Your task to perform on an android device: Search for vegetarian restaurants on Maps Image 0: 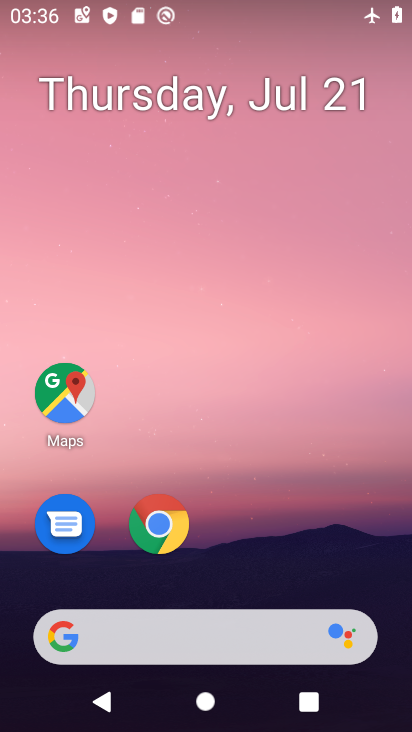
Step 0: drag from (252, 480) to (336, 0)
Your task to perform on an android device: Search for vegetarian restaurants on Maps Image 1: 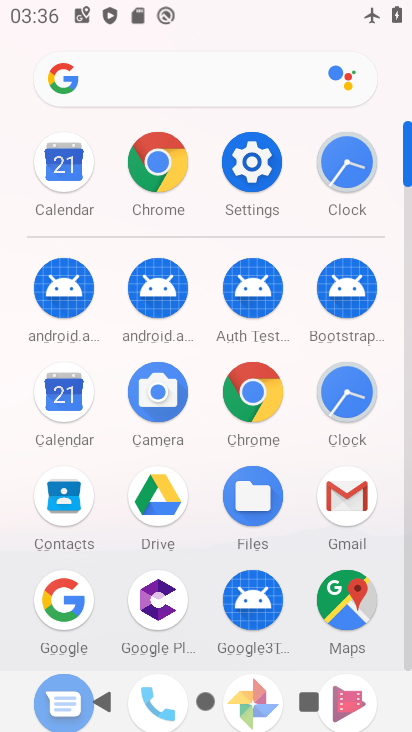
Step 1: click (247, 164)
Your task to perform on an android device: Search for vegetarian restaurants on Maps Image 2: 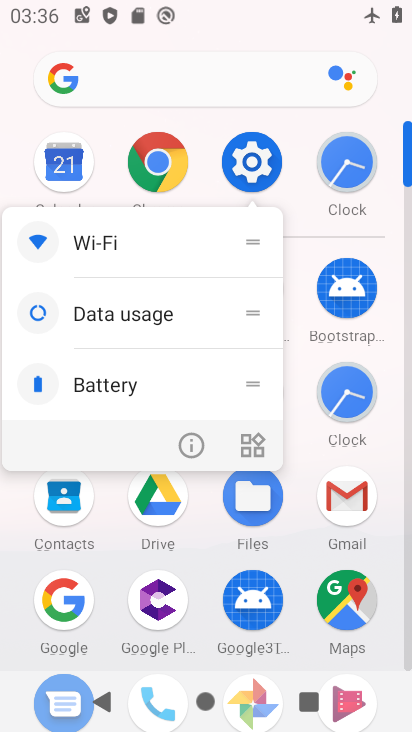
Step 2: click (250, 159)
Your task to perform on an android device: Search for vegetarian restaurants on Maps Image 3: 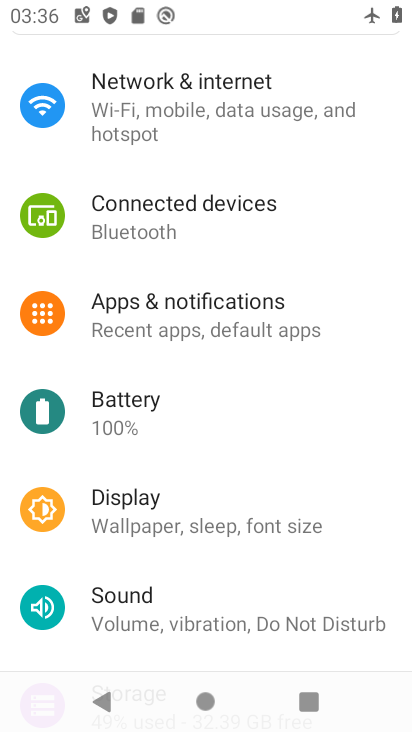
Step 3: click (263, 104)
Your task to perform on an android device: Search for vegetarian restaurants on Maps Image 4: 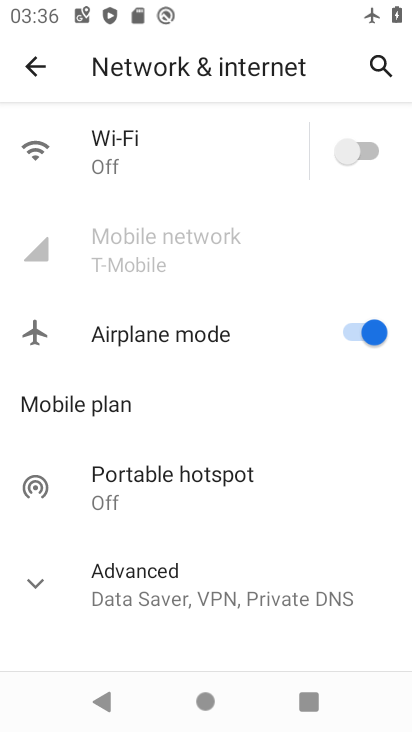
Step 4: click (369, 324)
Your task to perform on an android device: Search for vegetarian restaurants on Maps Image 5: 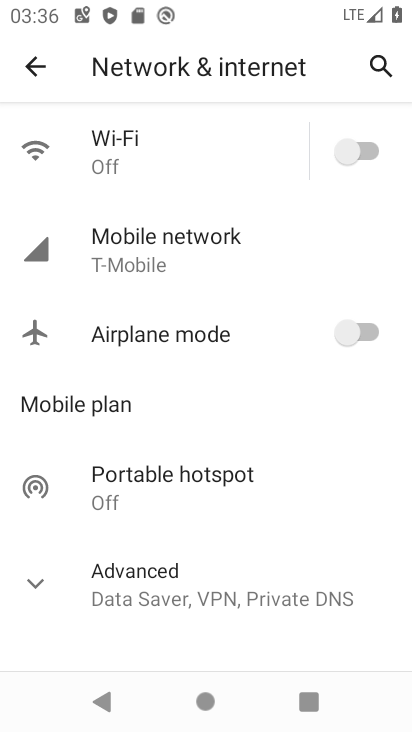
Step 5: click (372, 144)
Your task to perform on an android device: Search for vegetarian restaurants on Maps Image 6: 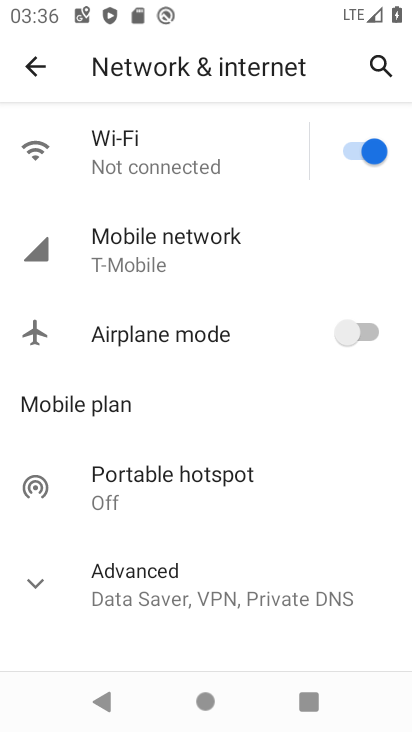
Step 6: press home button
Your task to perform on an android device: Search for vegetarian restaurants on Maps Image 7: 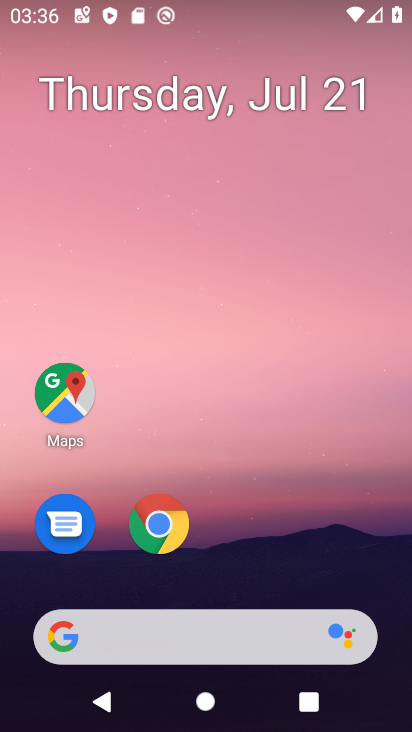
Step 7: click (70, 391)
Your task to perform on an android device: Search for vegetarian restaurants on Maps Image 8: 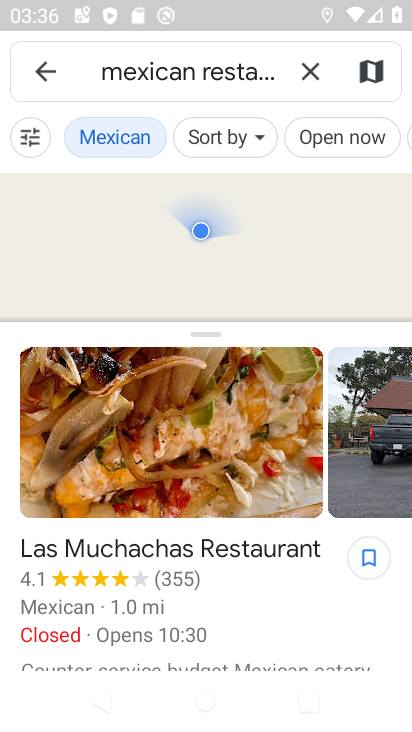
Step 8: click (308, 64)
Your task to perform on an android device: Search for vegetarian restaurants on Maps Image 9: 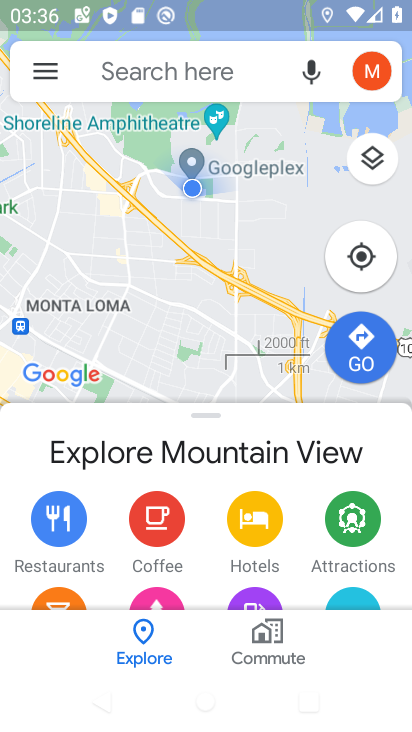
Step 9: click (253, 69)
Your task to perform on an android device: Search for vegetarian restaurants on Maps Image 10: 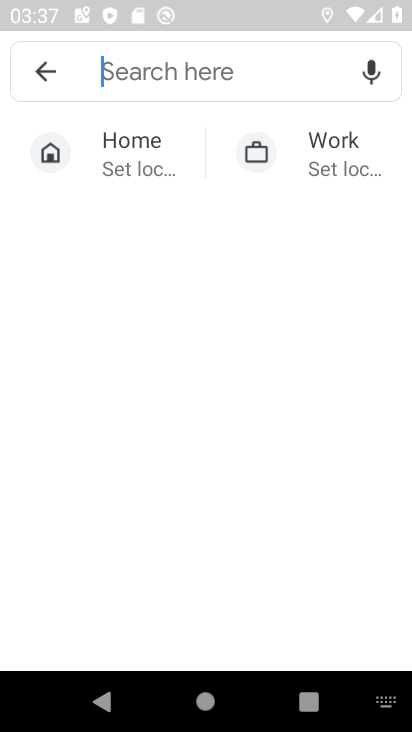
Step 10: type "vegetarian restaurants"
Your task to perform on an android device: Search for vegetarian restaurants on Maps Image 11: 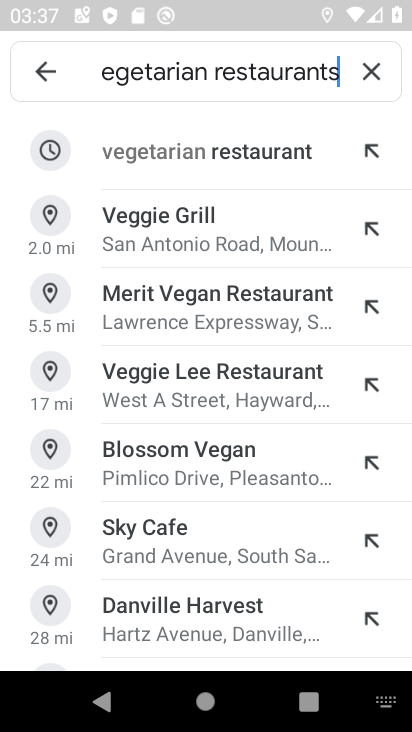
Step 11: click (274, 146)
Your task to perform on an android device: Search for vegetarian restaurants on Maps Image 12: 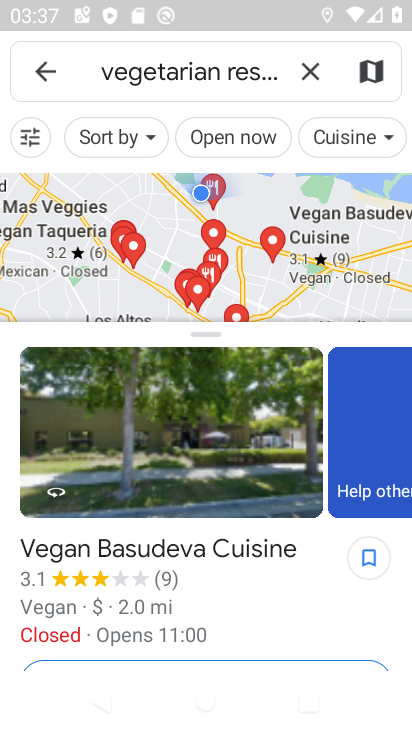
Step 12: task complete